Your task to perform on an android device: change the clock display to analog Image 0: 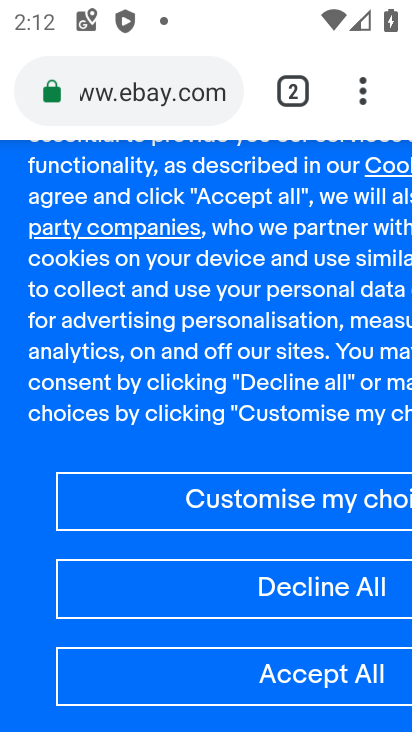
Step 0: press home button
Your task to perform on an android device: change the clock display to analog Image 1: 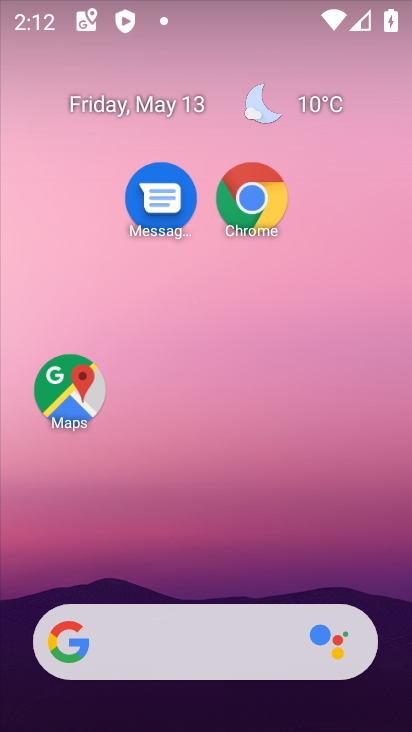
Step 1: drag from (162, 570) to (121, 16)
Your task to perform on an android device: change the clock display to analog Image 2: 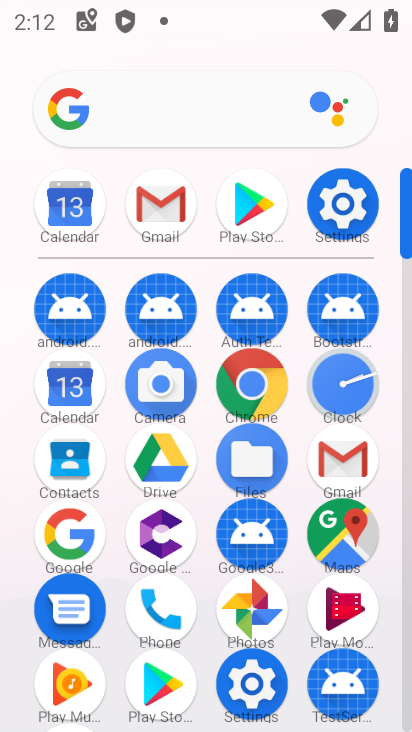
Step 2: click (353, 382)
Your task to perform on an android device: change the clock display to analog Image 3: 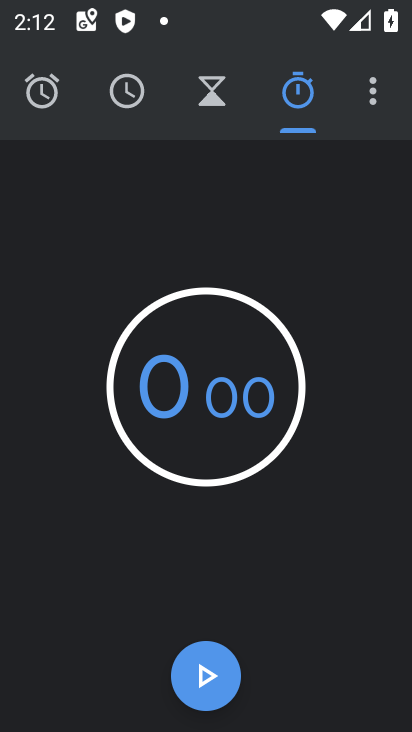
Step 3: click (363, 98)
Your task to perform on an android device: change the clock display to analog Image 4: 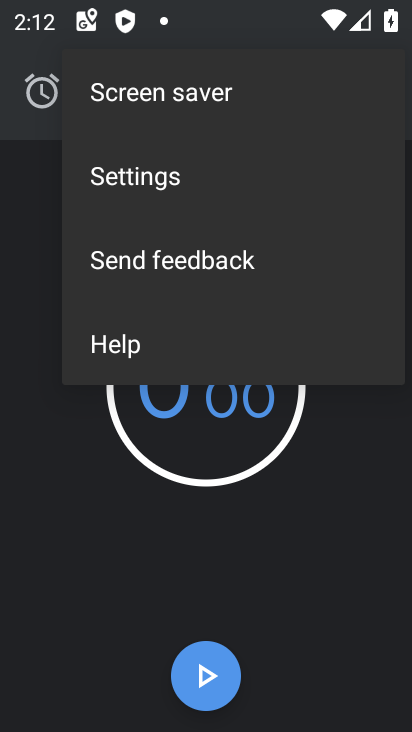
Step 4: click (145, 164)
Your task to perform on an android device: change the clock display to analog Image 5: 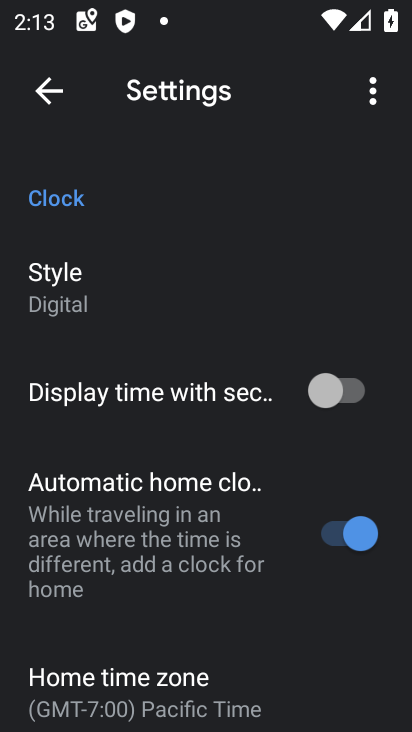
Step 5: click (77, 278)
Your task to perform on an android device: change the clock display to analog Image 6: 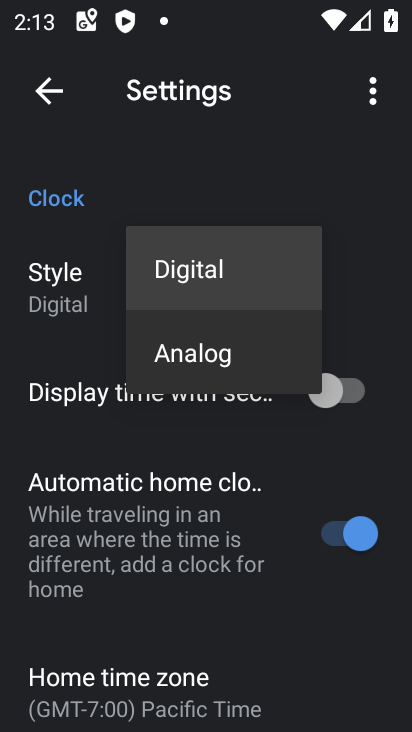
Step 6: click (196, 341)
Your task to perform on an android device: change the clock display to analog Image 7: 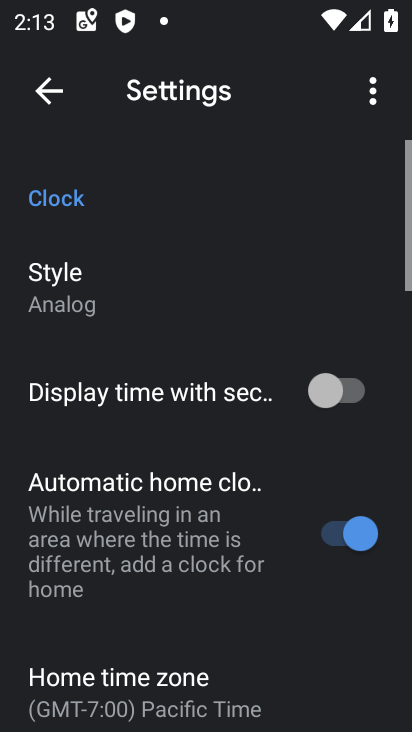
Step 7: task complete